Your task to perform on an android device: Show me the alarms in the clock app Image 0: 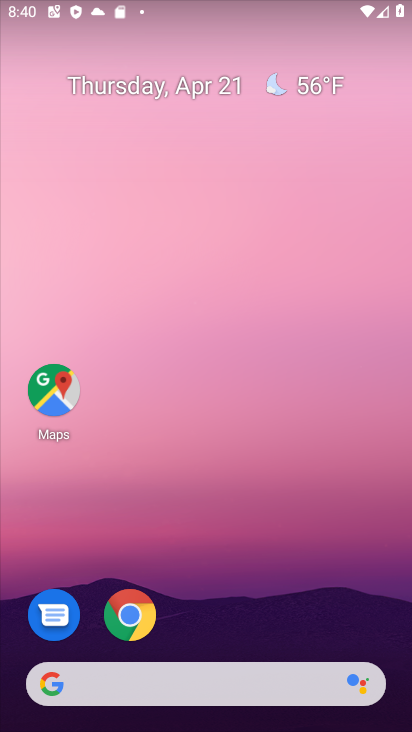
Step 0: drag from (227, 593) to (211, 67)
Your task to perform on an android device: Show me the alarms in the clock app Image 1: 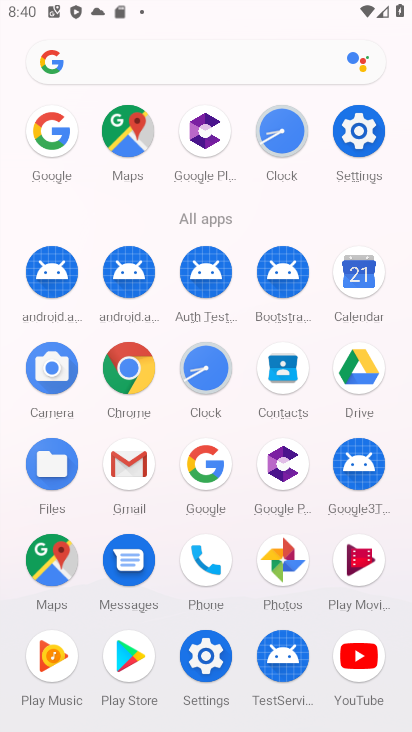
Step 1: click (210, 366)
Your task to perform on an android device: Show me the alarms in the clock app Image 2: 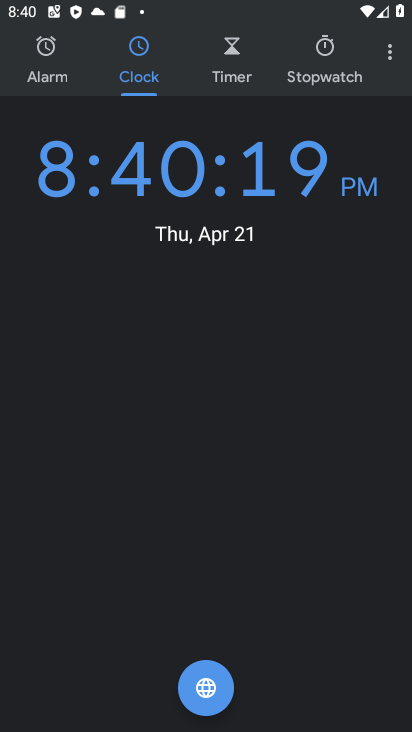
Step 2: click (56, 61)
Your task to perform on an android device: Show me the alarms in the clock app Image 3: 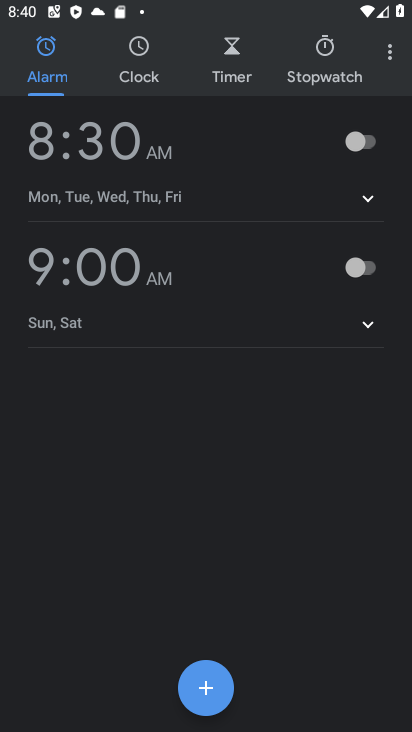
Step 3: task complete